Your task to perform on an android device: Show me popular videos on Youtube Image 0: 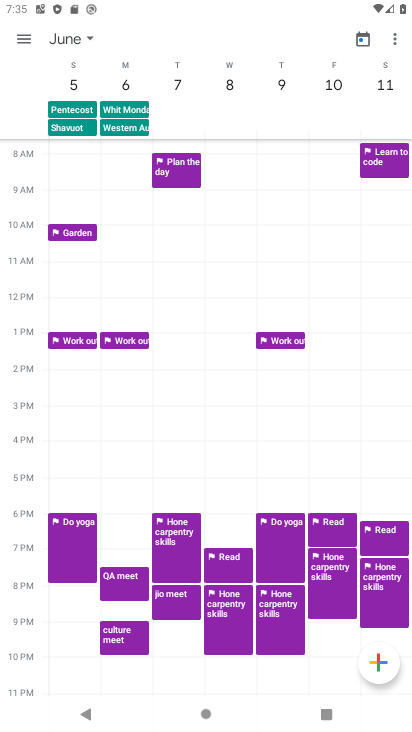
Step 0: press home button
Your task to perform on an android device: Show me popular videos on Youtube Image 1: 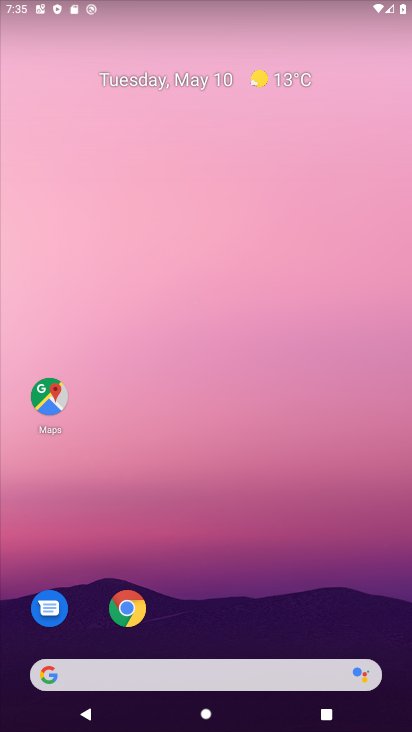
Step 1: drag from (248, 592) to (242, 196)
Your task to perform on an android device: Show me popular videos on Youtube Image 2: 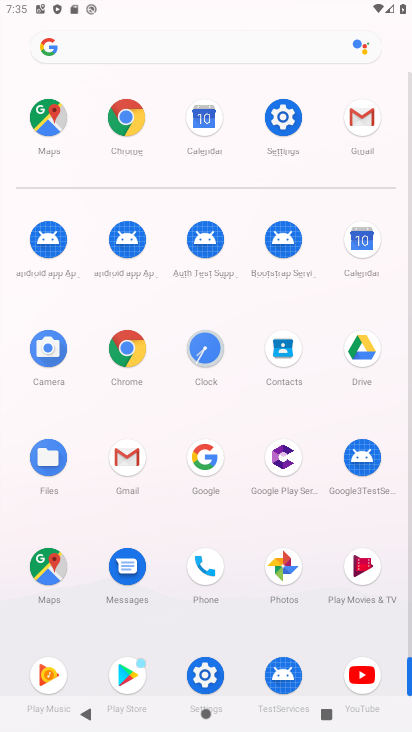
Step 2: click (363, 685)
Your task to perform on an android device: Show me popular videos on Youtube Image 3: 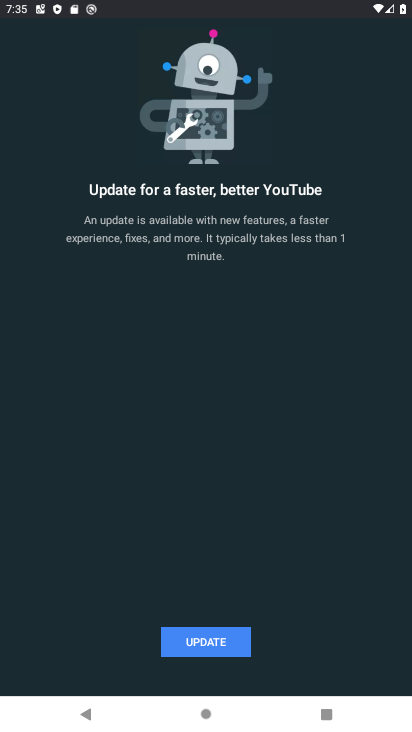
Step 3: click (232, 650)
Your task to perform on an android device: Show me popular videos on Youtube Image 4: 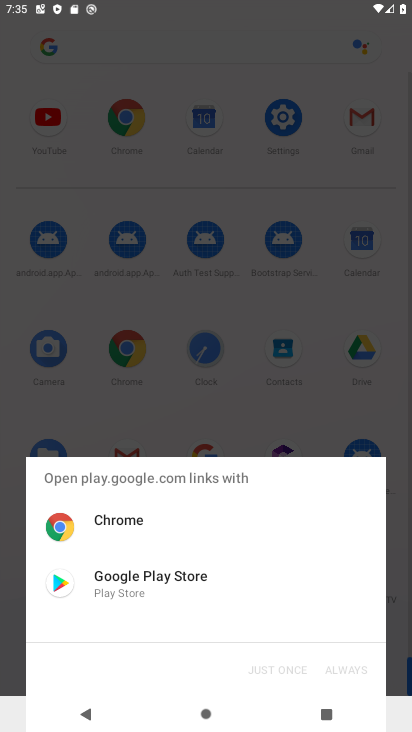
Step 4: click (133, 589)
Your task to perform on an android device: Show me popular videos on Youtube Image 5: 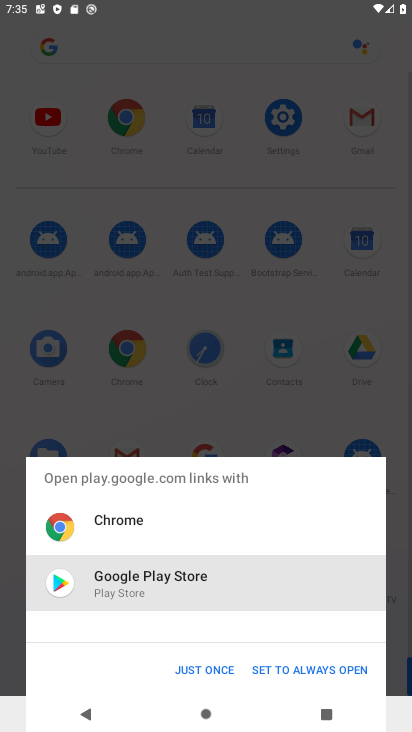
Step 5: click (277, 673)
Your task to perform on an android device: Show me popular videos on Youtube Image 6: 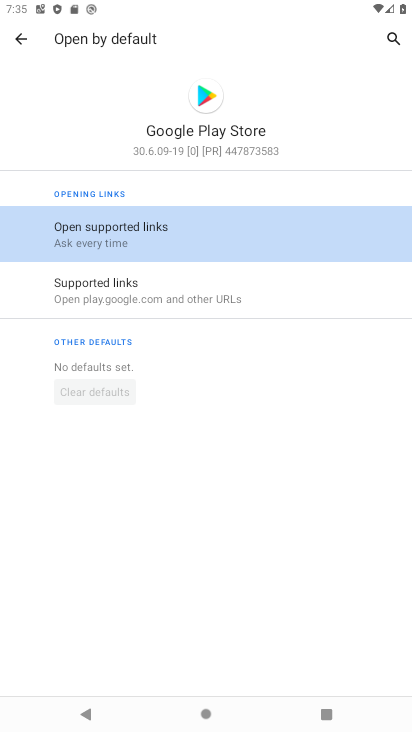
Step 6: click (143, 233)
Your task to perform on an android device: Show me popular videos on Youtube Image 7: 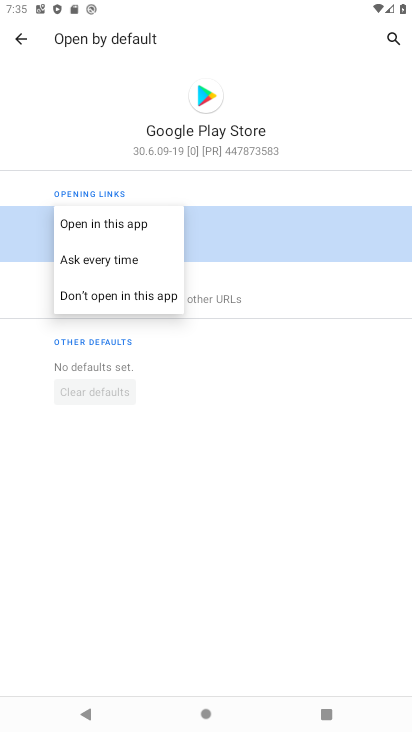
Step 7: click (148, 226)
Your task to perform on an android device: Show me popular videos on Youtube Image 8: 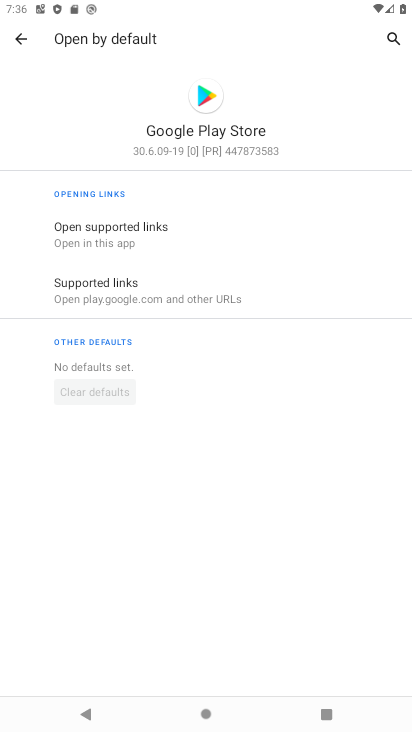
Step 8: click (123, 196)
Your task to perform on an android device: Show me popular videos on Youtube Image 9: 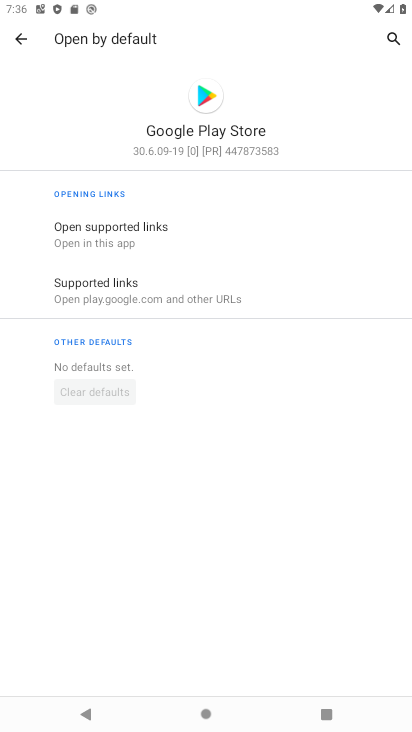
Step 9: click (27, 37)
Your task to perform on an android device: Show me popular videos on Youtube Image 10: 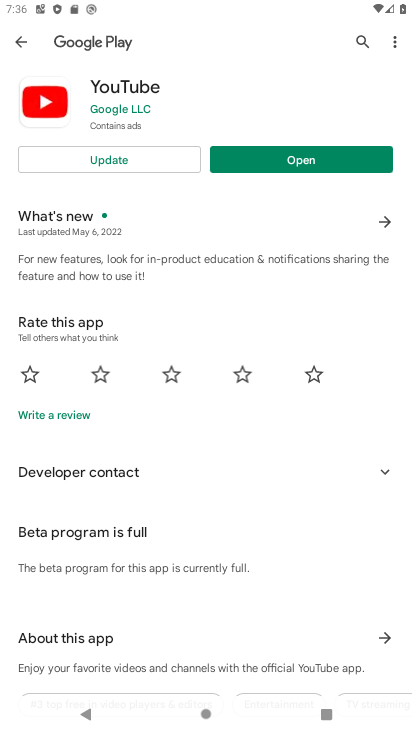
Step 10: click (293, 164)
Your task to perform on an android device: Show me popular videos on Youtube Image 11: 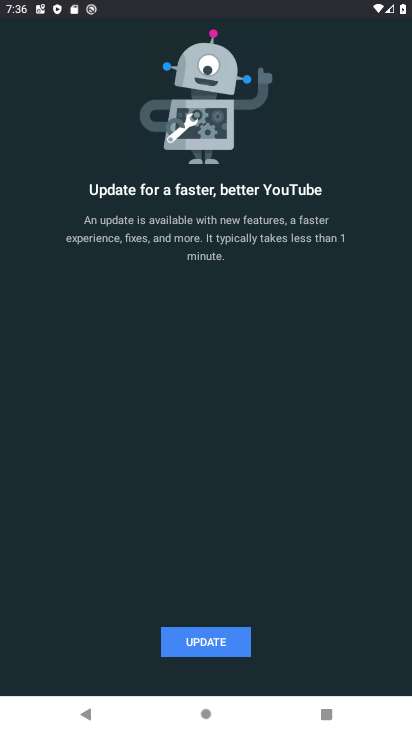
Step 11: click (251, 643)
Your task to perform on an android device: Show me popular videos on Youtube Image 12: 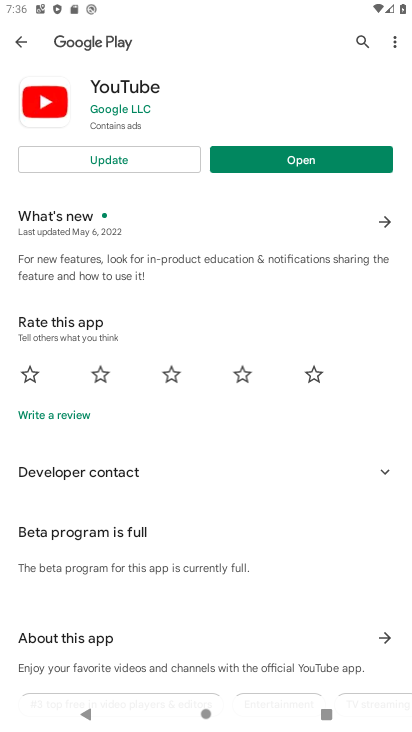
Step 12: click (104, 167)
Your task to perform on an android device: Show me popular videos on Youtube Image 13: 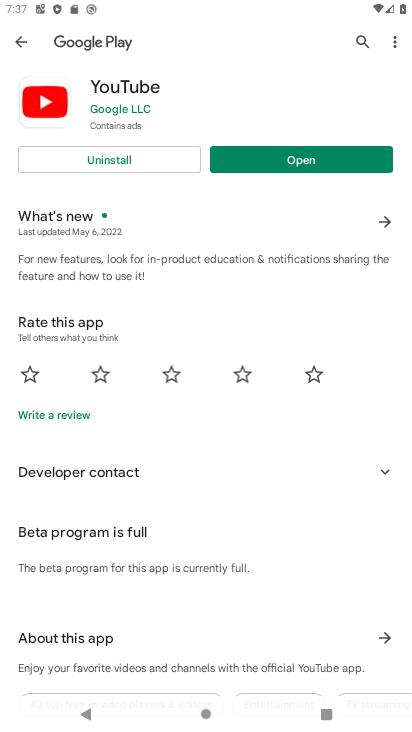
Step 13: click (281, 171)
Your task to perform on an android device: Show me popular videos on Youtube Image 14: 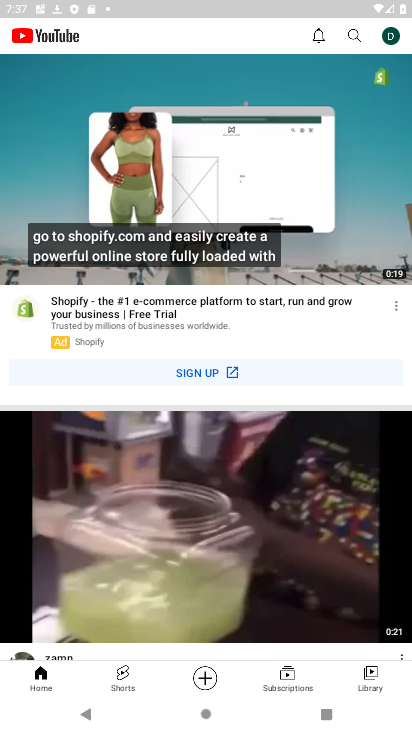
Step 14: task complete